Your task to perform on an android device: open wifi settings Image 0: 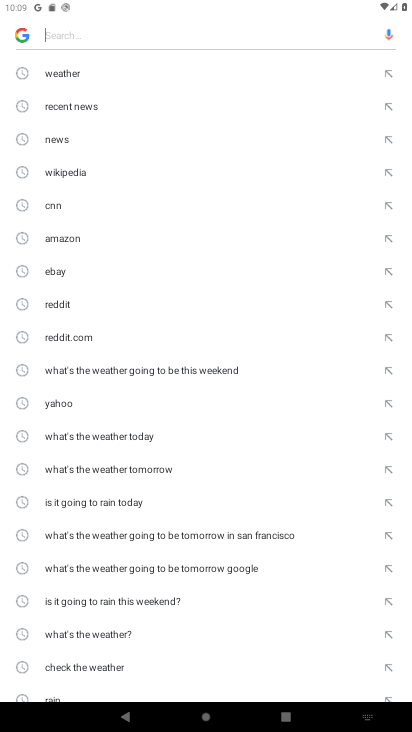
Step 0: drag from (288, 3) to (158, 720)
Your task to perform on an android device: open wifi settings Image 1: 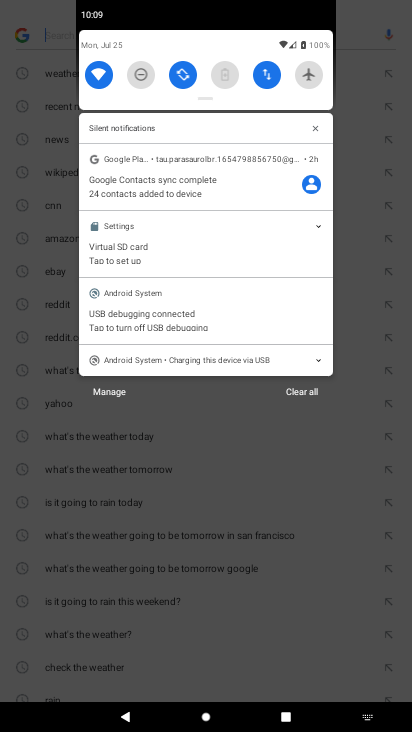
Step 1: click (104, 83)
Your task to perform on an android device: open wifi settings Image 2: 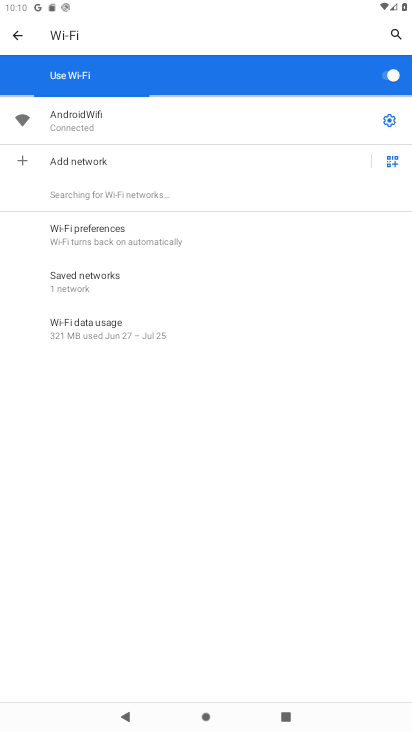
Step 2: task complete